Your task to perform on an android device: Go to internet settings Image 0: 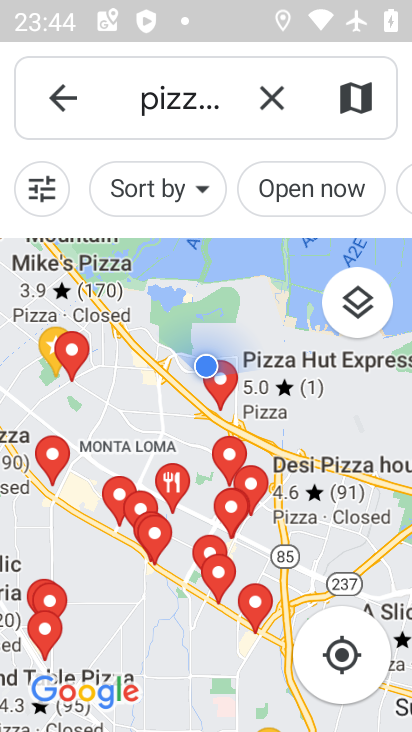
Step 0: press home button
Your task to perform on an android device: Go to internet settings Image 1: 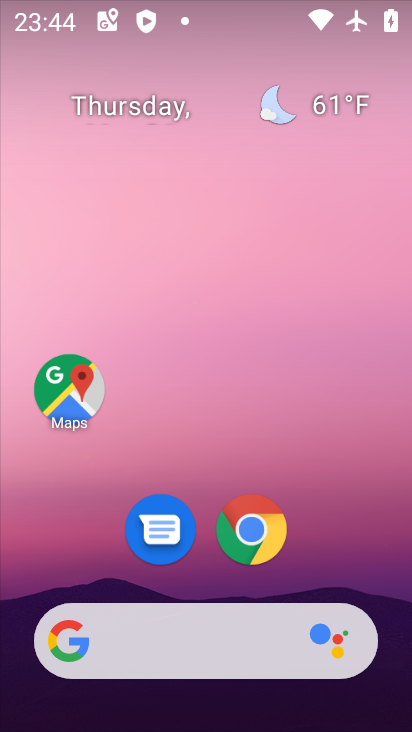
Step 1: drag from (335, 550) to (293, 146)
Your task to perform on an android device: Go to internet settings Image 2: 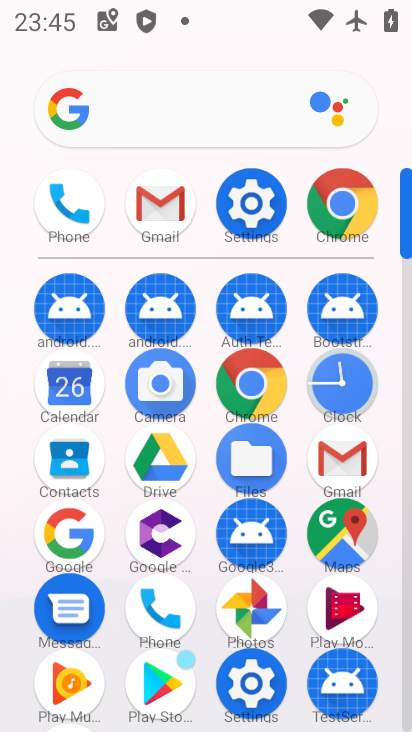
Step 2: click (238, 232)
Your task to perform on an android device: Go to internet settings Image 3: 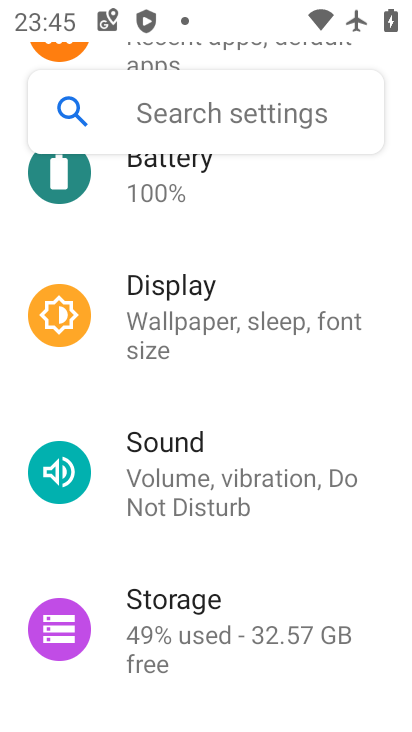
Step 3: drag from (212, 202) to (270, 651)
Your task to perform on an android device: Go to internet settings Image 4: 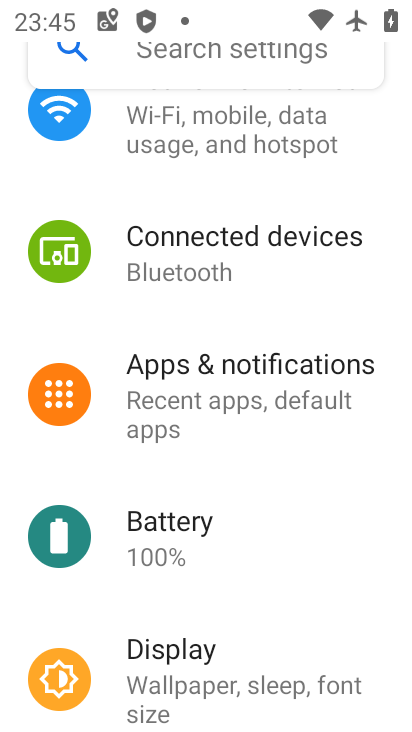
Step 4: click (225, 231)
Your task to perform on an android device: Go to internet settings Image 5: 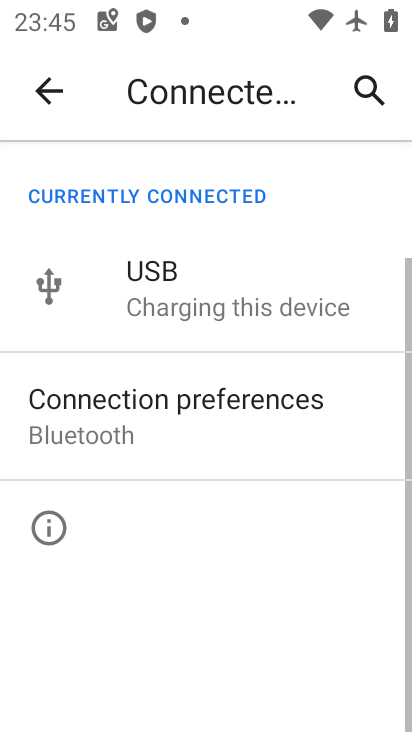
Step 5: task complete